Your task to perform on an android device: open device folders in google photos Image 0: 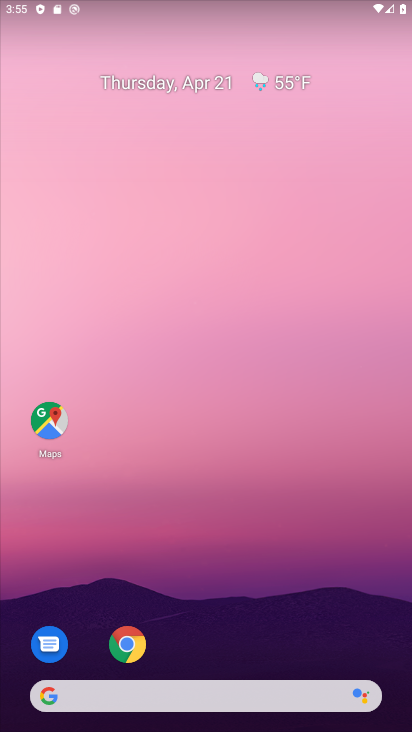
Step 0: drag from (156, 692) to (265, 202)
Your task to perform on an android device: open device folders in google photos Image 1: 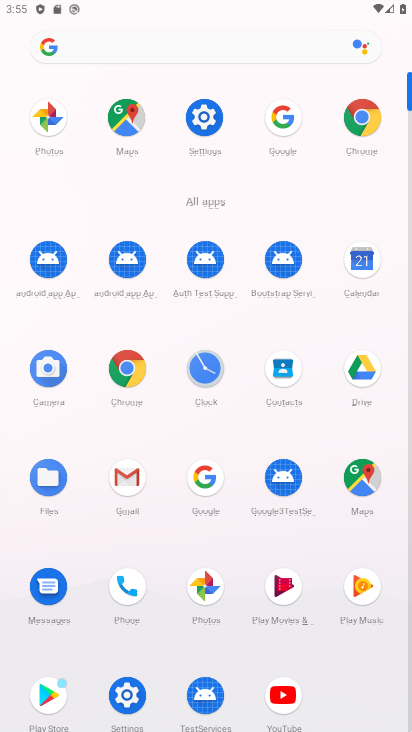
Step 1: click (207, 587)
Your task to perform on an android device: open device folders in google photos Image 2: 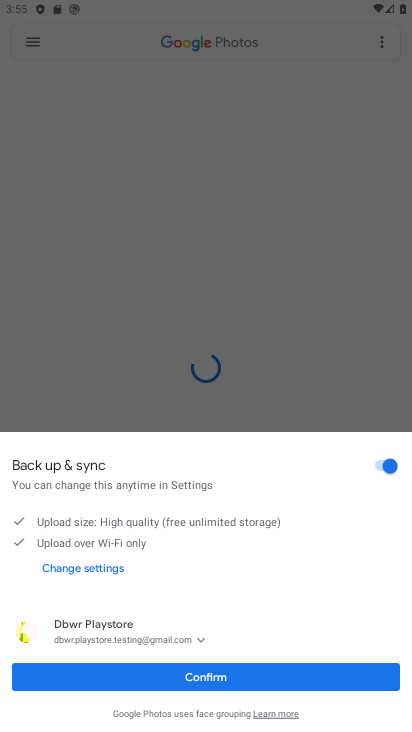
Step 2: click (207, 678)
Your task to perform on an android device: open device folders in google photos Image 3: 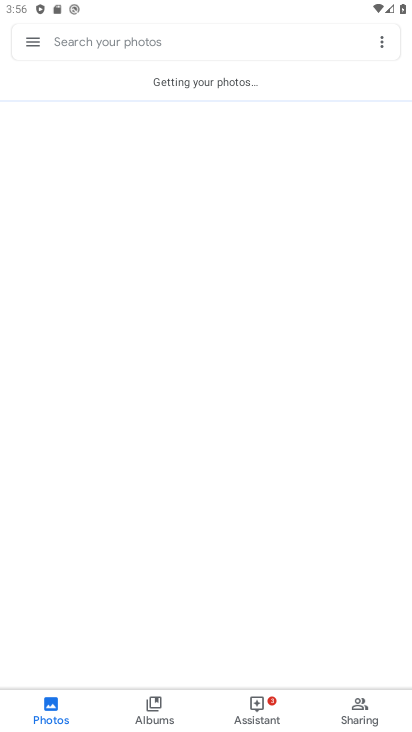
Step 3: click (29, 42)
Your task to perform on an android device: open device folders in google photos Image 4: 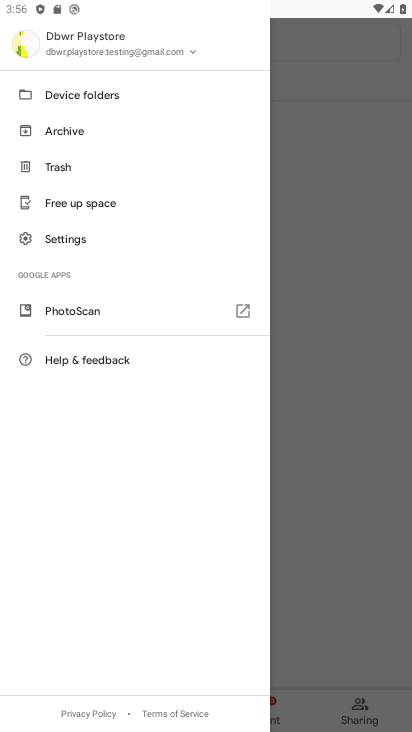
Step 4: click (84, 96)
Your task to perform on an android device: open device folders in google photos Image 5: 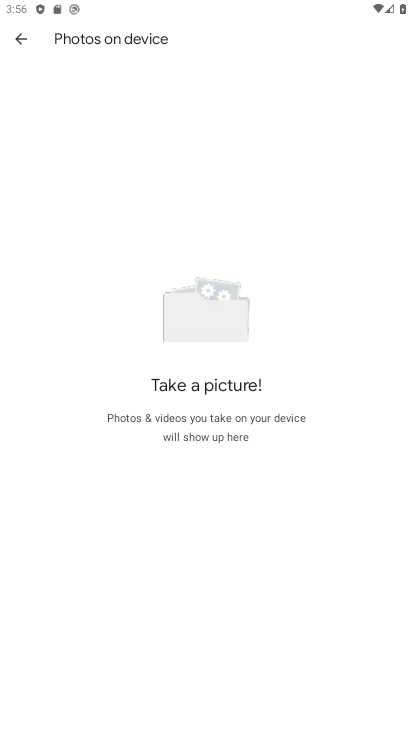
Step 5: task complete